Your task to perform on an android device: Open accessibility settings Image 0: 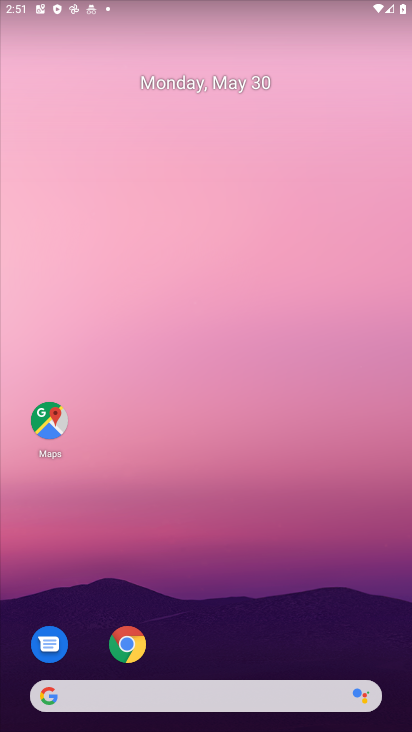
Step 0: drag from (327, 645) to (209, 127)
Your task to perform on an android device: Open accessibility settings Image 1: 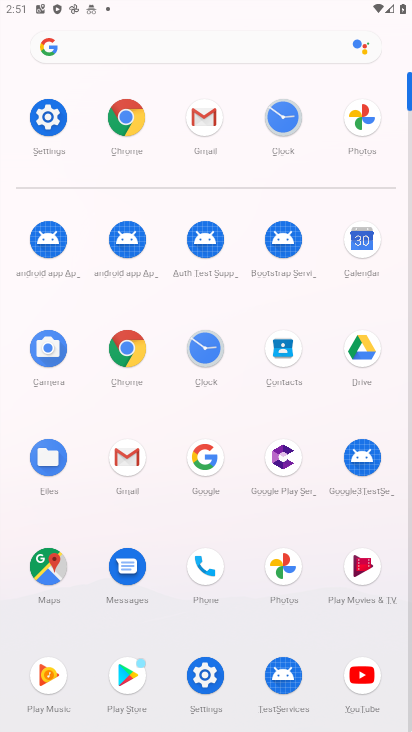
Step 1: click (61, 150)
Your task to perform on an android device: Open accessibility settings Image 2: 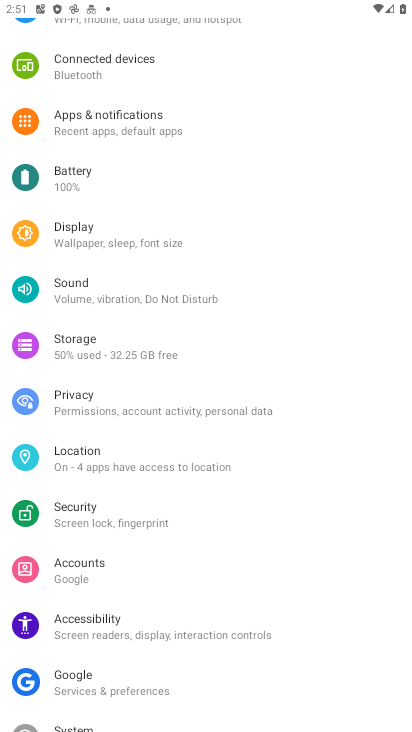
Step 2: click (271, 649)
Your task to perform on an android device: Open accessibility settings Image 3: 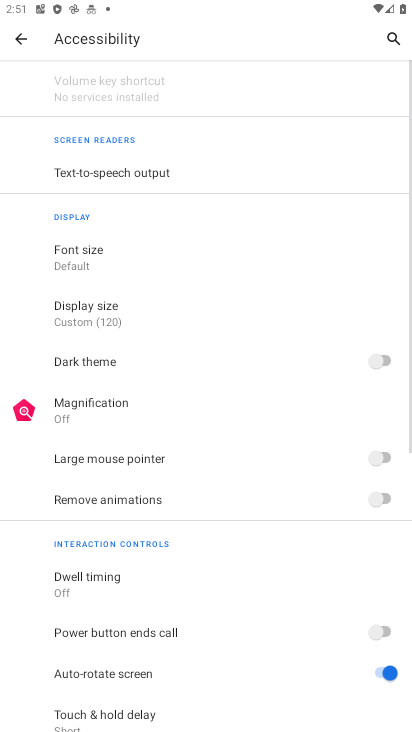
Step 3: task complete